Your task to perform on an android device: Search for flights from NYC to San Diego Image 0: 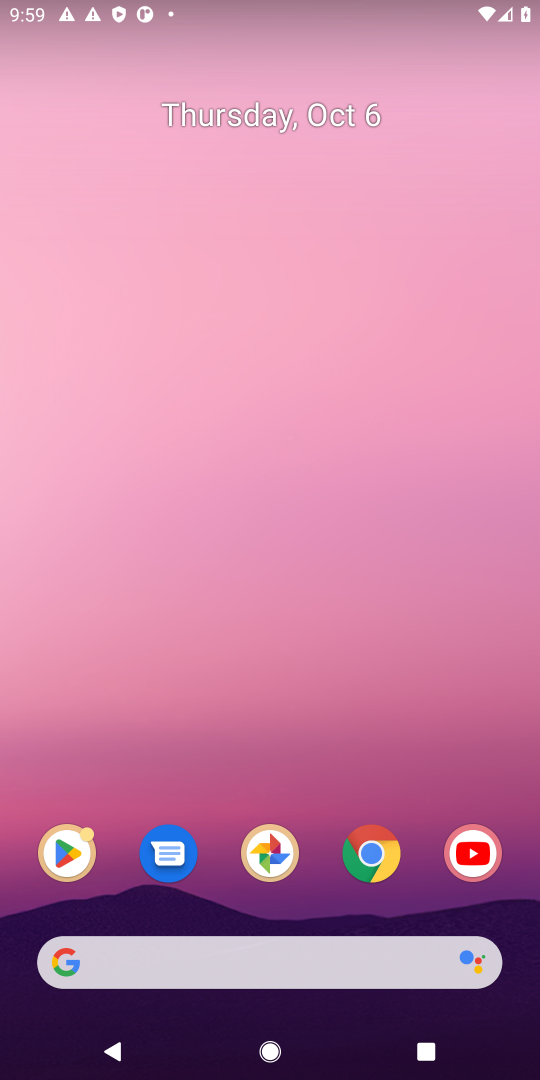
Step 0: click (211, 970)
Your task to perform on an android device: Search for flights from NYC to San Diego Image 1: 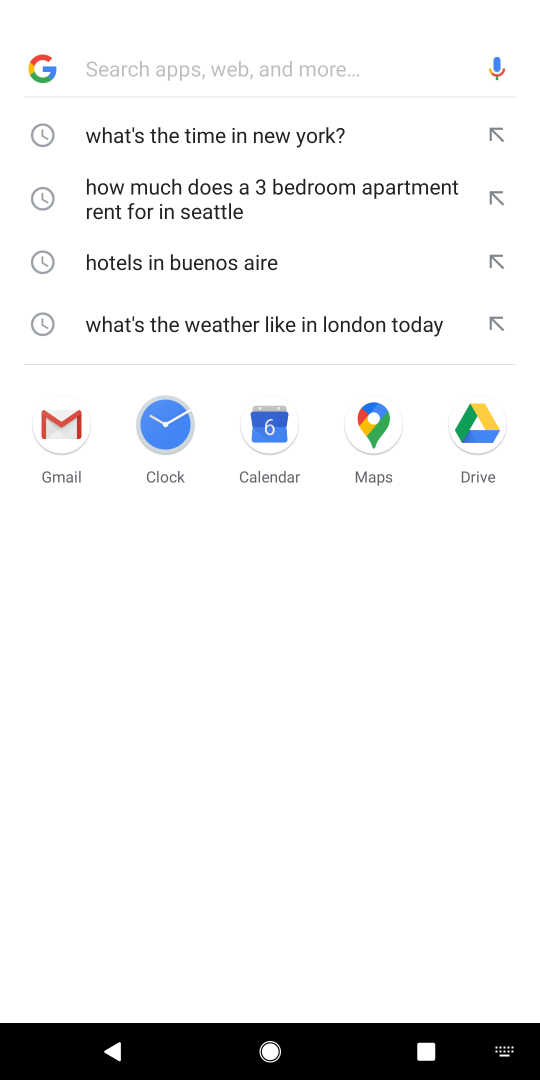
Step 1: click (133, 63)
Your task to perform on an android device: Search for flights from NYC to San Diego Image 2: 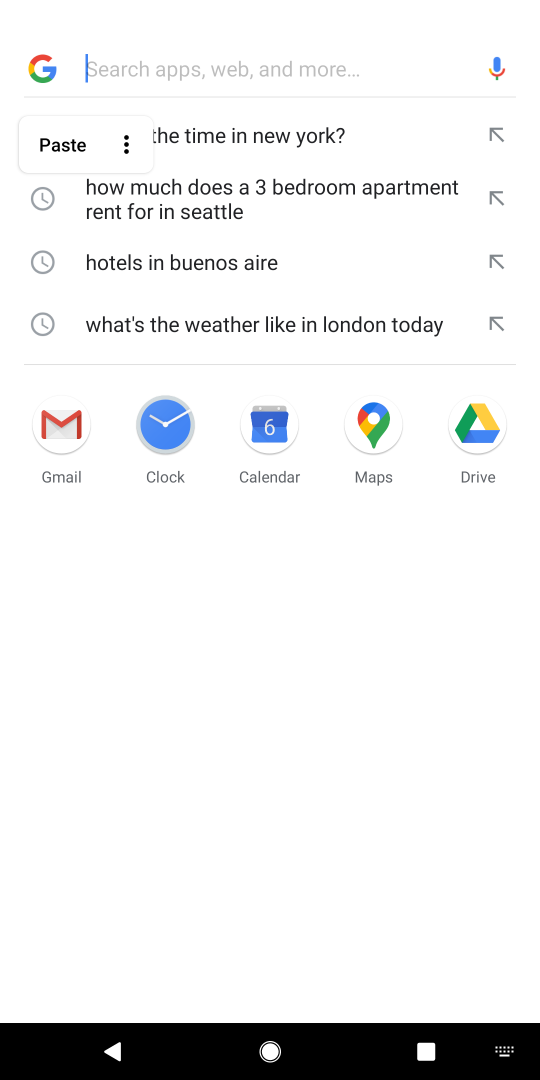
Step 2: type "flights from nyc to san diego"
Your task to perform on an android device: Search for flights from NYC to San Diego Image 3: 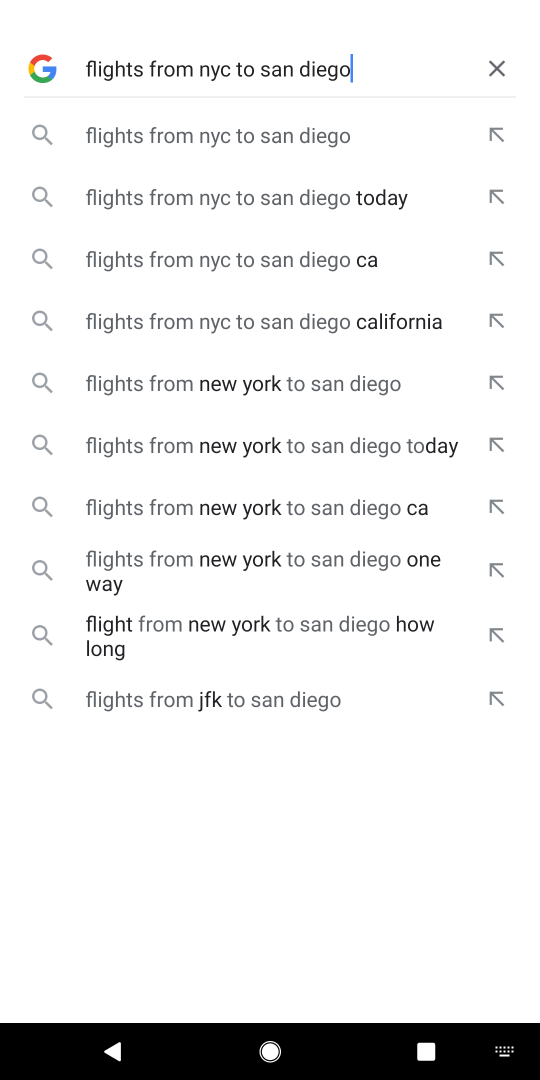
Step 3: click (299, 152)
Your task to perform on an android device: Search for flights from NYC to San Diego Image 4: 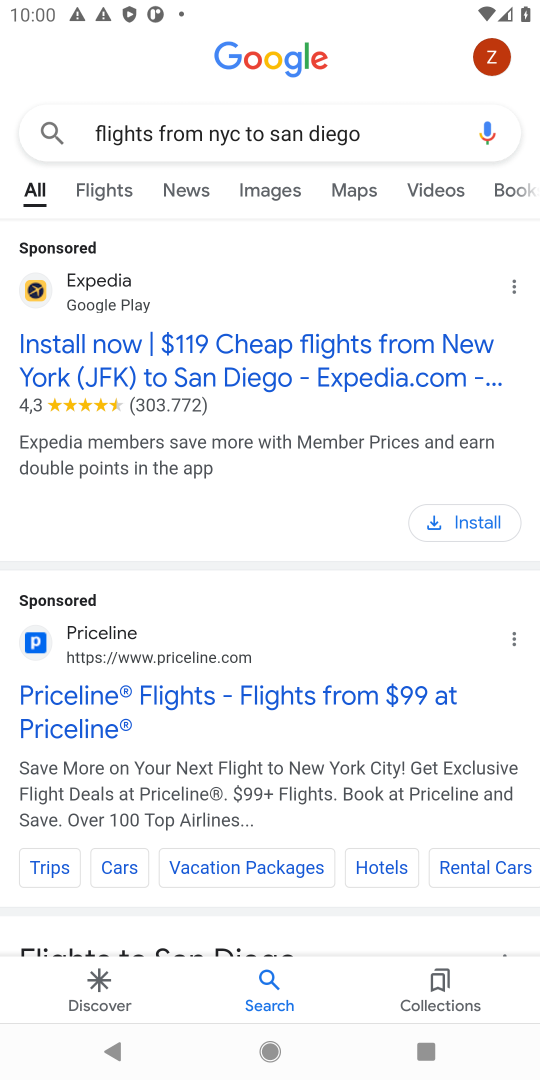
Step 4: task complete